Your task to perform on an android device: add a contact Image 0: 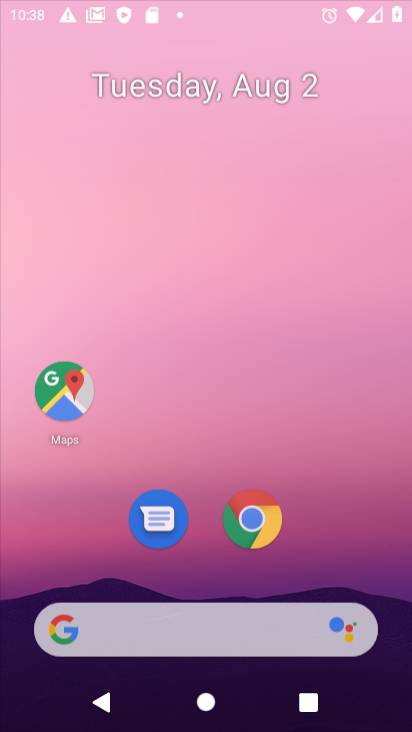
Step 0: press home button
Your task to perform on an android device: add a contact Image 1: 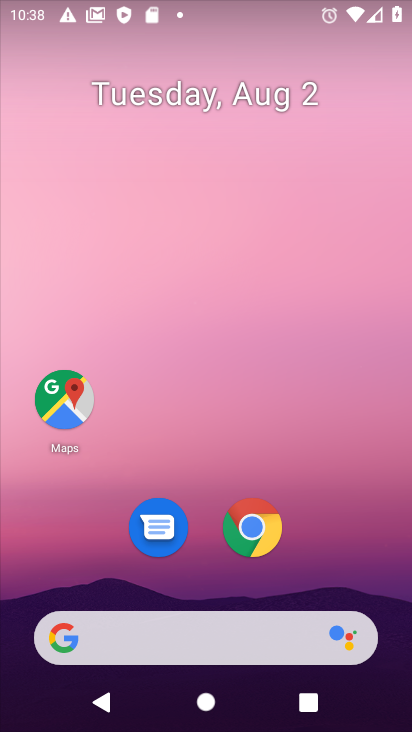
Step 1: drag from (209, 585) to (217, 82)
Your task to perform on an android device: add a contact Image 2: 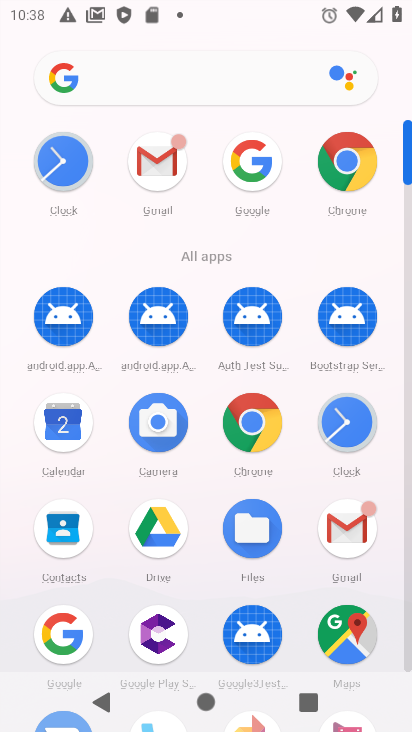
Step 2: click (61, 528)
Your task to perform on an android device: add a contact Image 3: 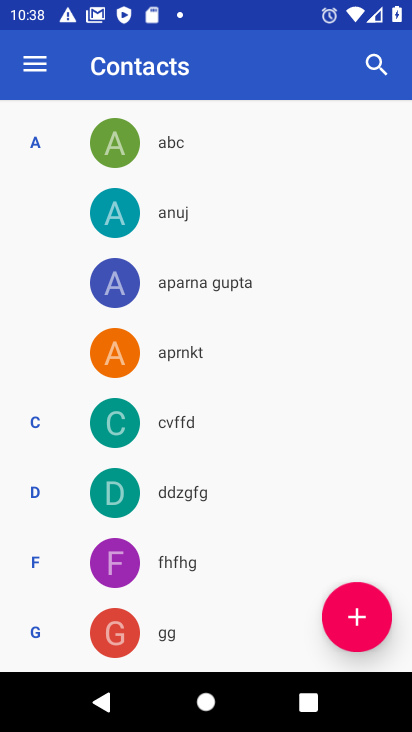
Step 3: click (352, 610)
Your task to perform on an android device: add a contact Image 4: 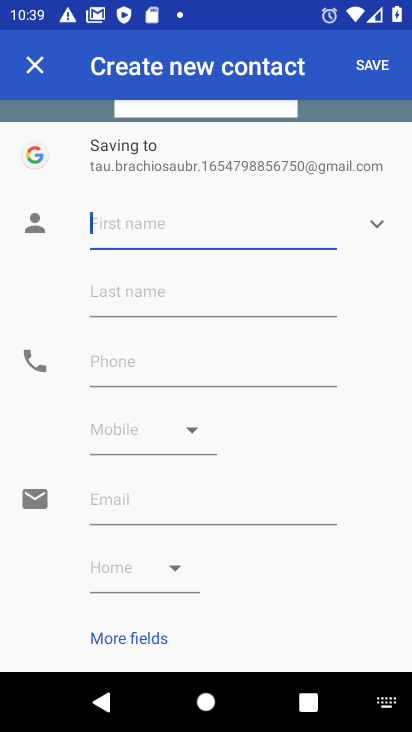
Step 4: type "gfctf"
Your task to perform on an android device: add a contact Image 5: 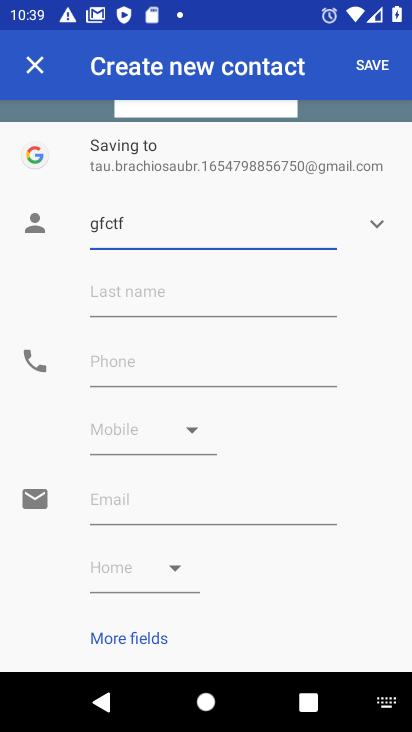
Step 5: click (367, 64)
Your task to perform on an android device: add a contact Image 6: 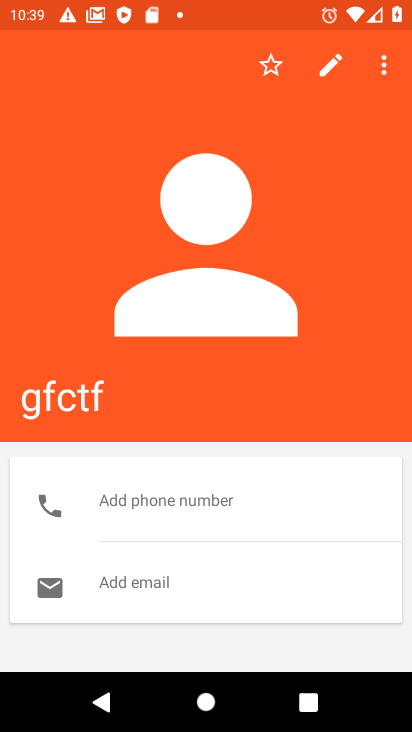
Step 6: task complete